Your task to perform on an android device: change keyboard looks Image 0: 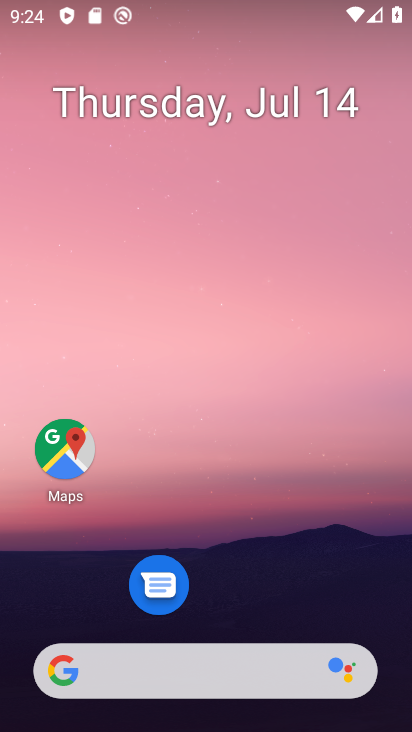
Step 0: drag from (247, 626) to (19, 3)
Your task to perform on an android device: change keyboard looks Image 1: 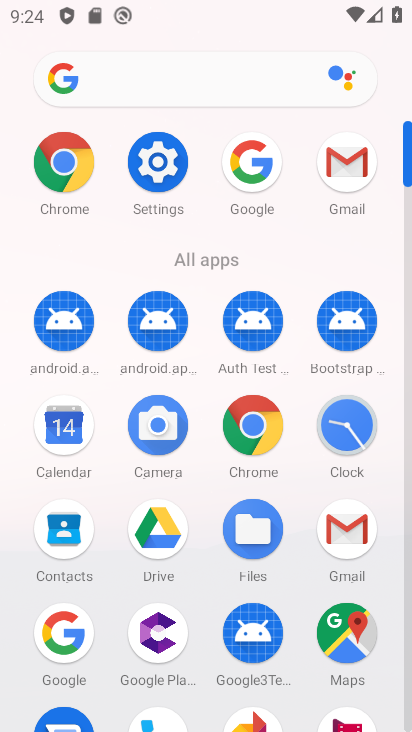
Step 1: click (154, 165)
Your task to perform on an android device: change keyboard looks Image 2: 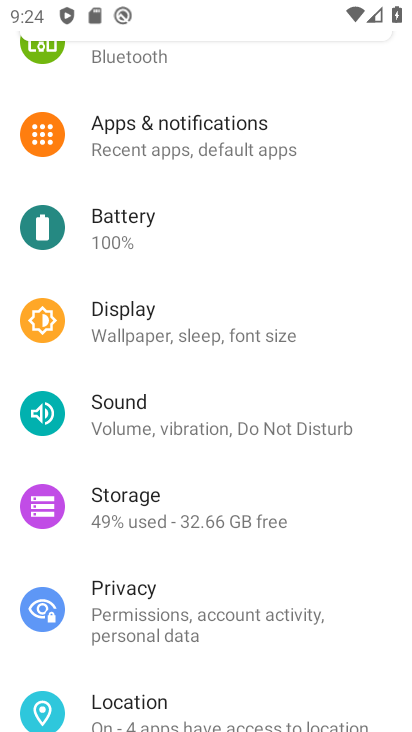
Step 2: drag from (222, 631) to (74, 28)
Your task to perform on an android device: change keyboard looks Image 3: 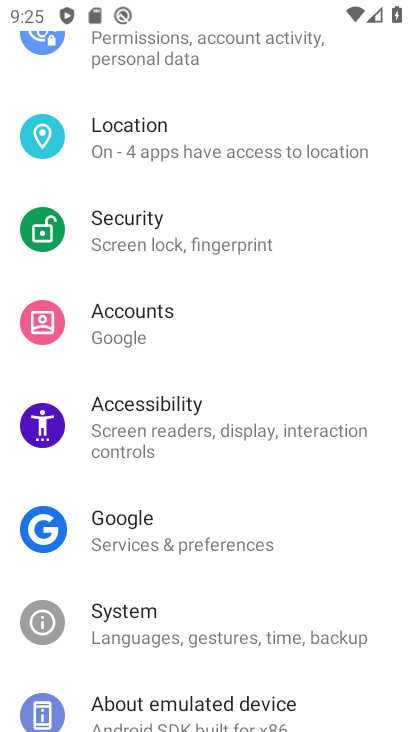
Step 3: click (151, 606)
Your task to perform on an android device: change keyboard looks Image 4: 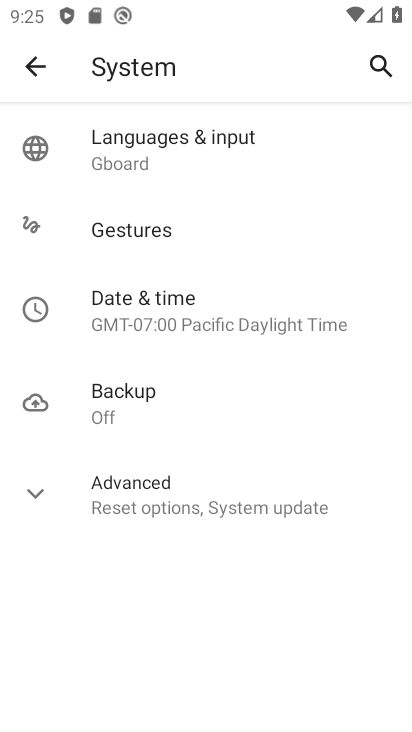
Step 4: click (132, 482)
Your task to perform on an android device: change keyboard looks Image 5: 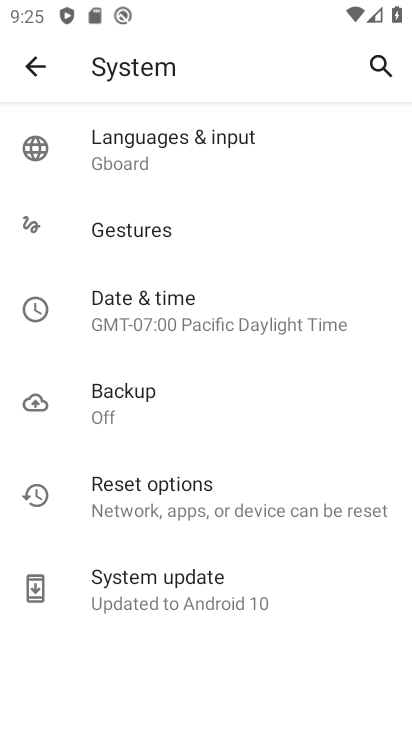
Step 5: click (177, 170)
Your task to perform on an android device: change keyboard looks Image 6: 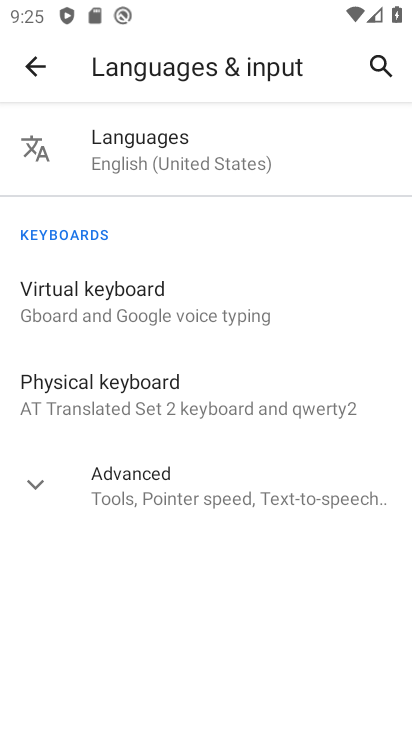
Step 6: click (79, 296)
Your task to perform on an android device: change keyboard looks Image 7: 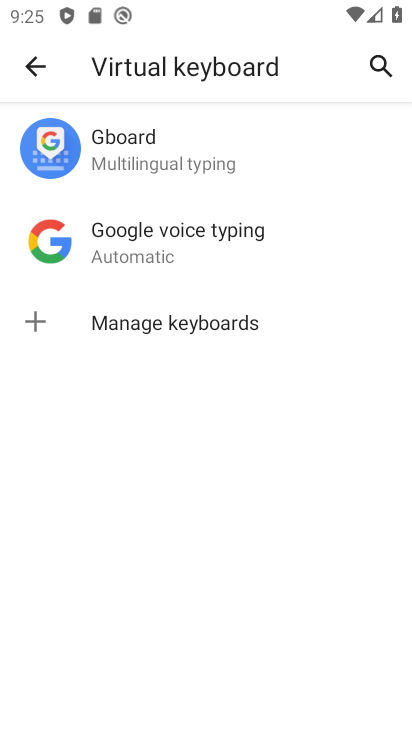
Step 7: click (165, 187)
Your task to perform on an android device: change keyboard looks Image 8: 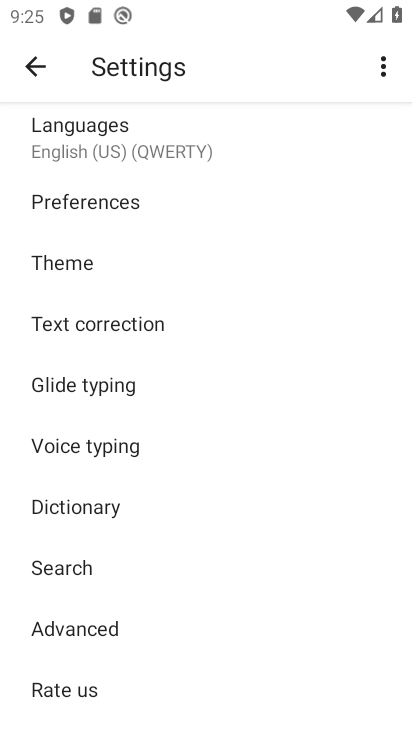
Step 8: click (76, 255)
Your task to perform on an android device: change keyboard looks Image 9: 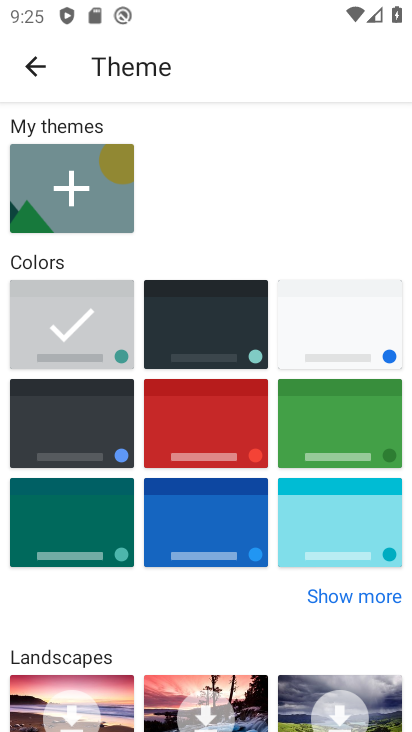
Step 9: click (211, 302)
Your task to perform on an android device: change keyboard looks Image 10: 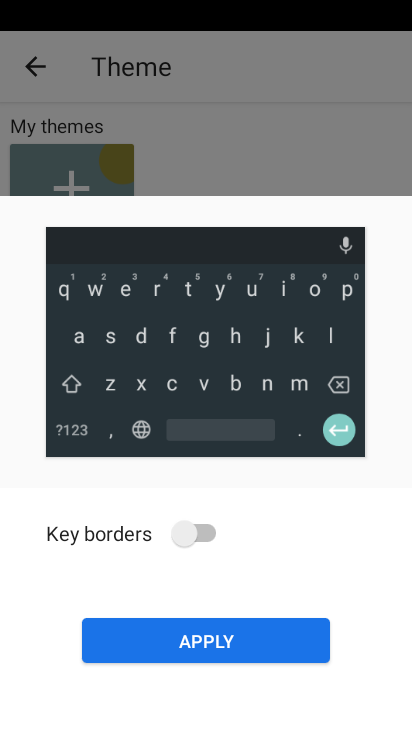
Step 10: click (309, 645)
Your task to perform on an android device: change keyboard looks Image 11: 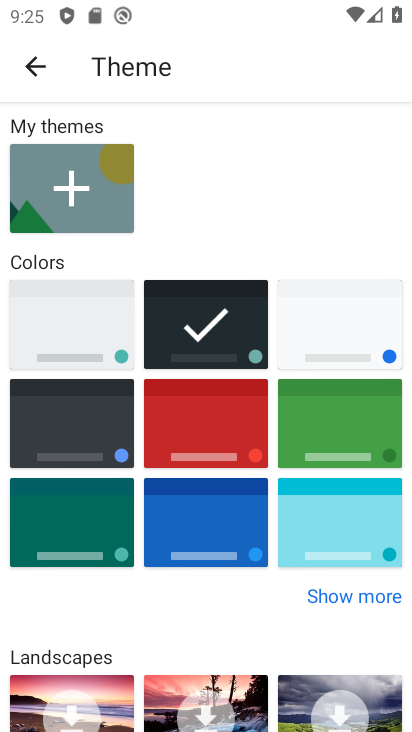
Step 11: task complete